Your task to perform on an android device: see creations saved in the google photos Image 0: 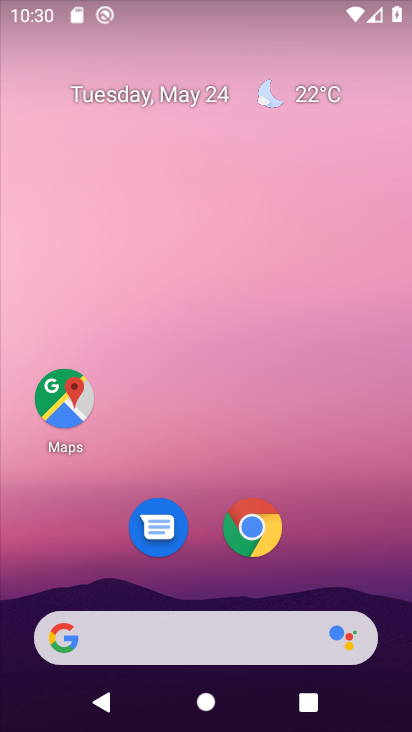
Step 0: drag from (241, 628) to (374, 67)
Your task to perform on an android device: see creations saved in the google photos Image 1: 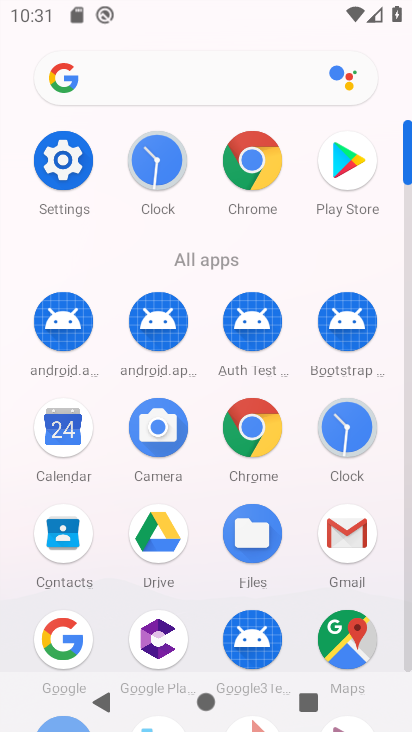
Step 1: drag from (208, 599) to (365, 99)
Your task to perform on an android device: see creations saved in the google photos Image 2: 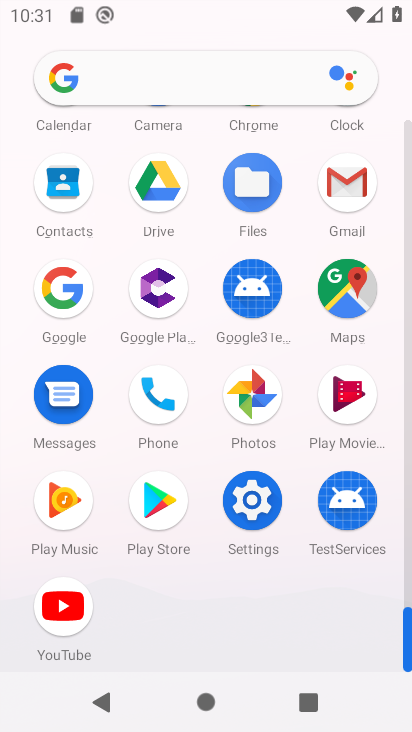
Step 2: click (260, 403)
Your task to perform on an android device: see creations saved in the google photos Image 3: 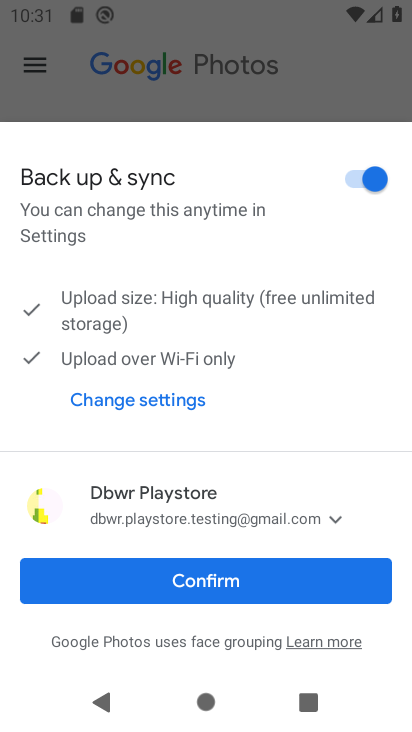
Step 3: click (215, 572)
Your task to perform on an android device: see creations saved in the google photos Image 4: 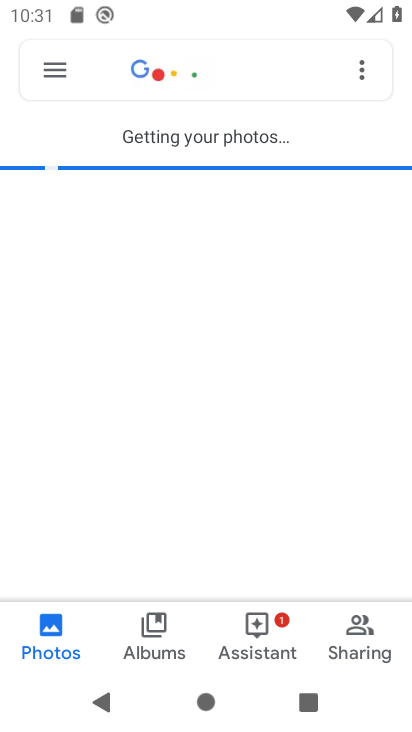
Step 4: click (158, 636)
Your task to perform on an android device: see creations saved in the google photos Image 5: 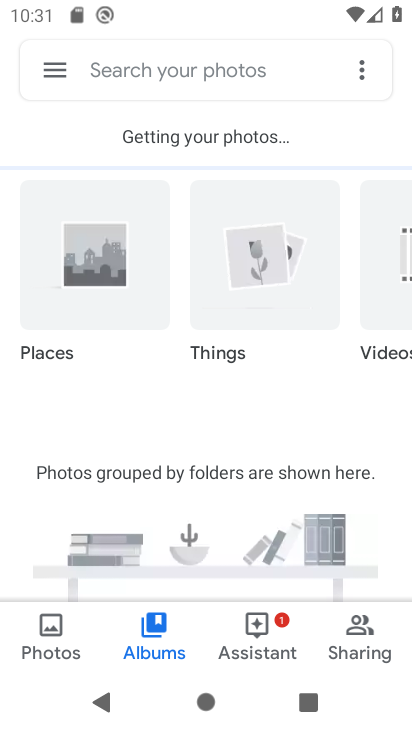
Step 5: click (213, 70)
Your task to perform on an android device: see creations saved in the google photos Image 6: 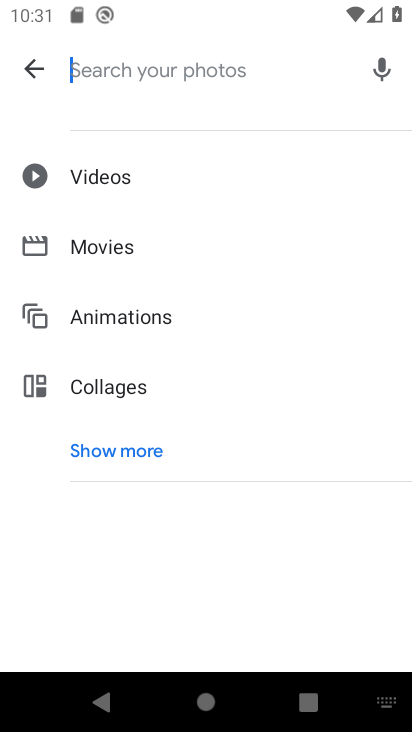
Step 6: click (116, 444)
Your task to perform on an android device: see creations saved in the google photos Image 7: 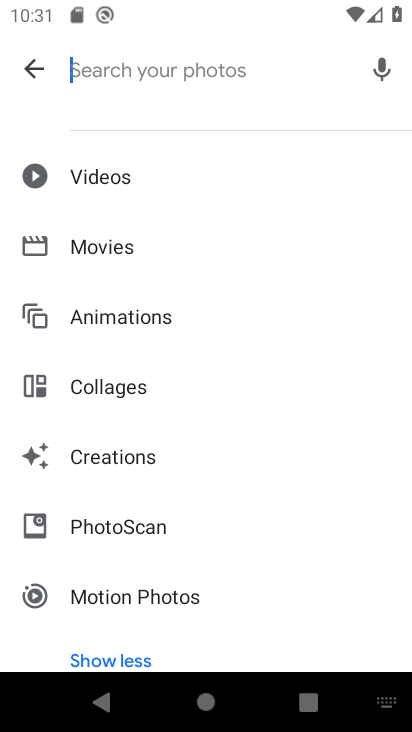
Step 7: click (121, 453)
Your task to perform on an android device: see creations saved in the google photos Image 8: 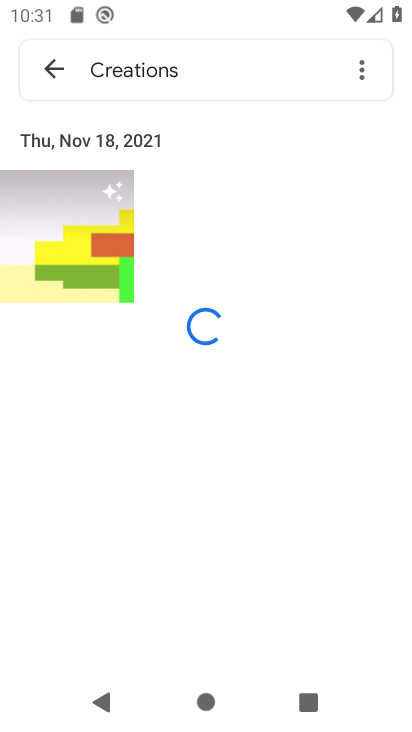
Step 8: task complete